Your task to perform on an android device: open app "Google Calendar" Image 0: 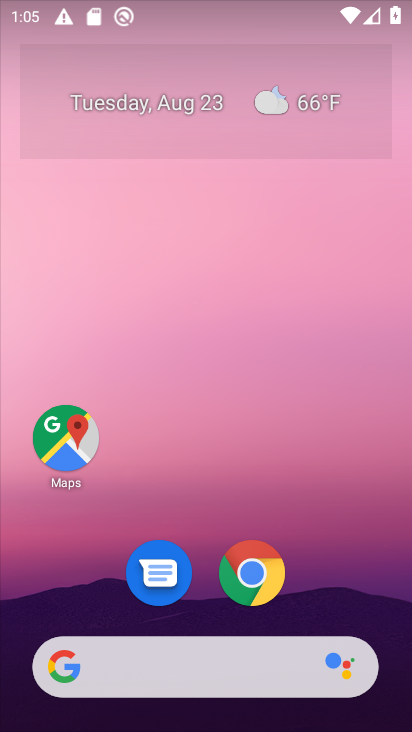
Step 0: drag from (223, 399) to (227, 116)
Your task to perform on an android device: open app "Google Calendar" Image 1: 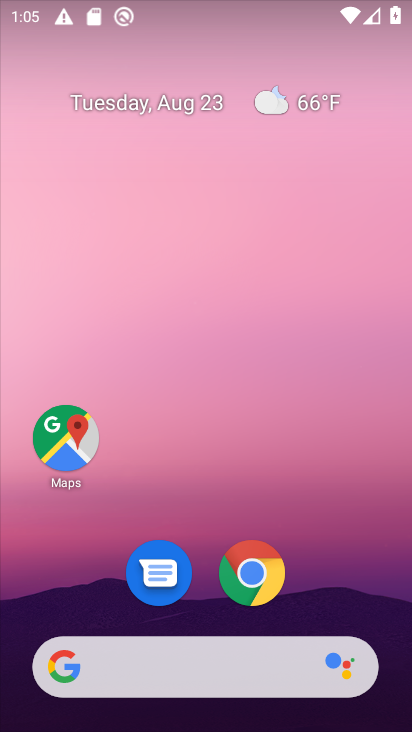
Step 1: drag from (196, 533) to (195, 45)
Your task to perform on an android device: open app "Google Calendar" Image 2: 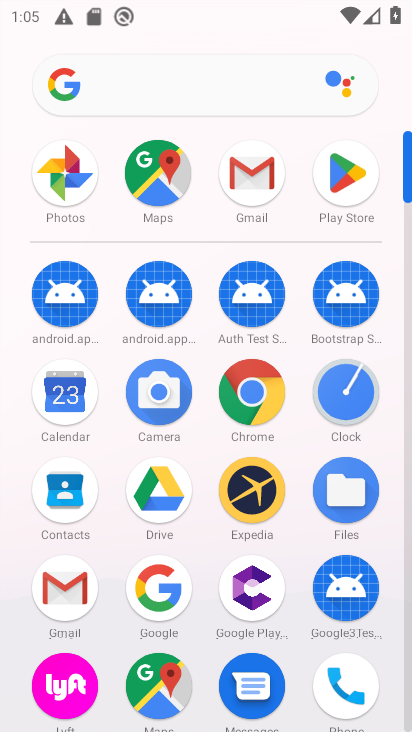
Step 2: click (339, 156)
Your task to perform on an android device: open app "Google Calendar" Image 3: 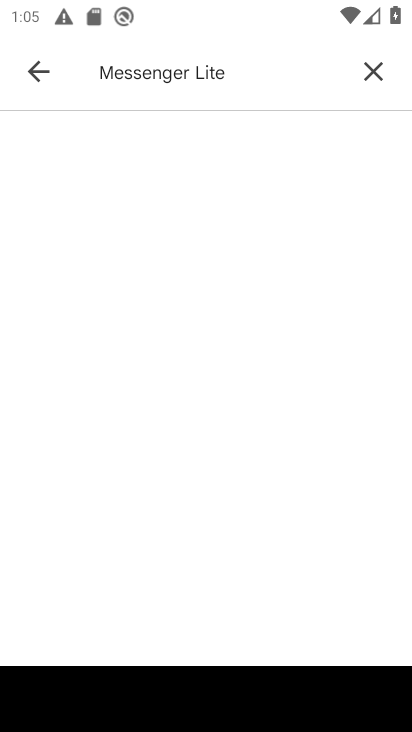
Step 3: click (374, 72)
Your task to perform on an android device: open app "Google Calendar" Image 4: 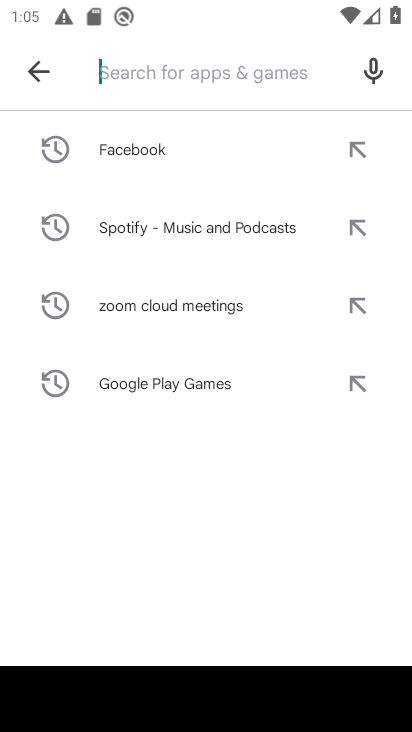
Step 4: type "Google Calendar"
Your task to perform on an android device: open app "Google Calendar" Image 5: 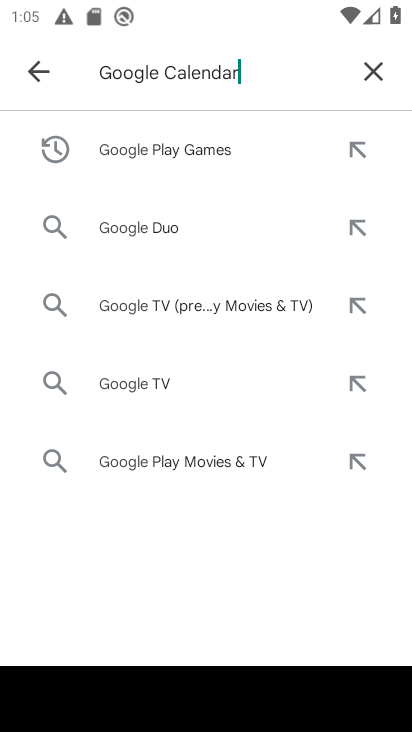
Step 5: type ""
Your task to perform on an android device: open app "Google Calendar" Image 6: 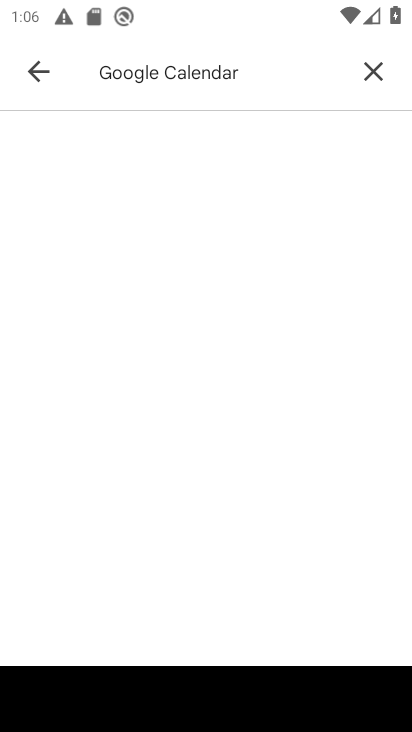
Step 6: task complete